Your task to perform on an android device: snooze an email in the gmail app Image 0: 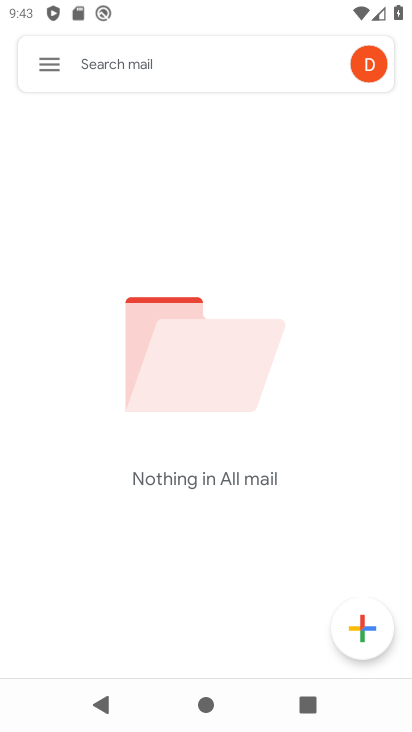
Step 0: press home button
Your task to perform on an android device: snooze an email in the gmail app Image 1: 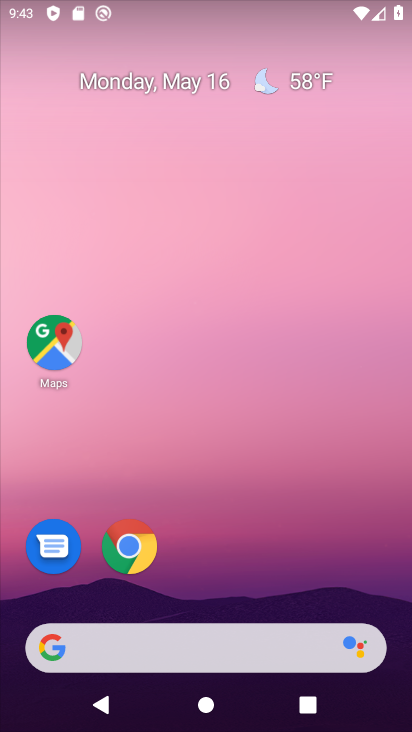
Step 1: drag from (271, 576) to (255, 293)
Your task to perform on an android device: snooze an email in the gmail app Image 2: 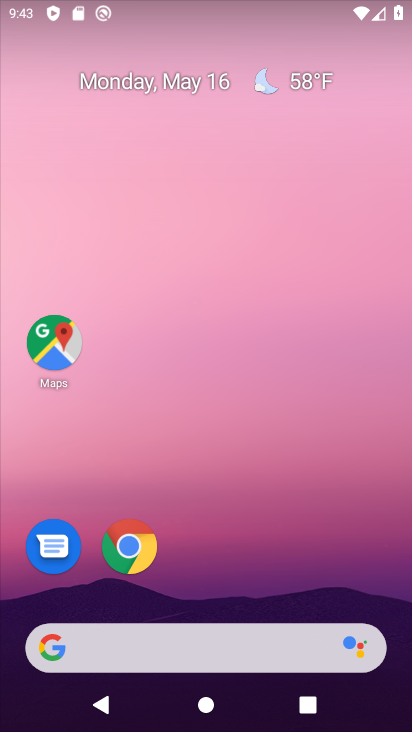
Step 2: drag from (278, 460) to (262, 81)
Your task to perform on an android device: snooze an email in the gmail app Image 3: 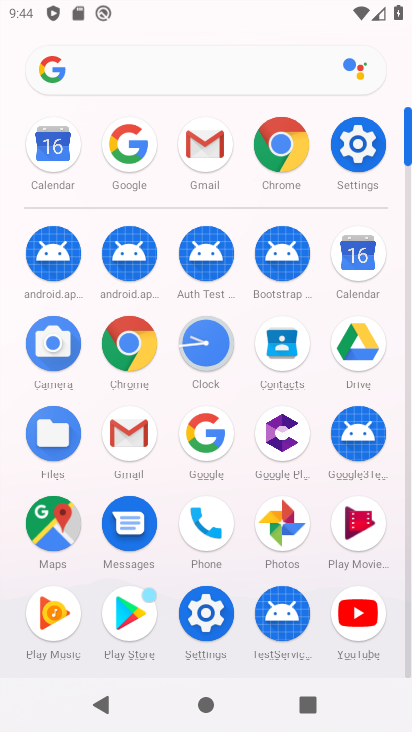
Step 3: click (204, 144)
Your task to perform on an android device: snooze an email in the gmail app Image 4: 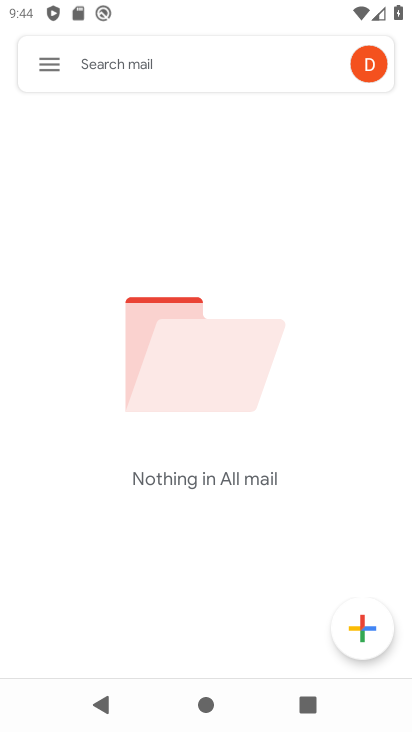
Step 4: click (53, 58)
Your task to perform on an android device: snooze an email in the gmail app Image 5: 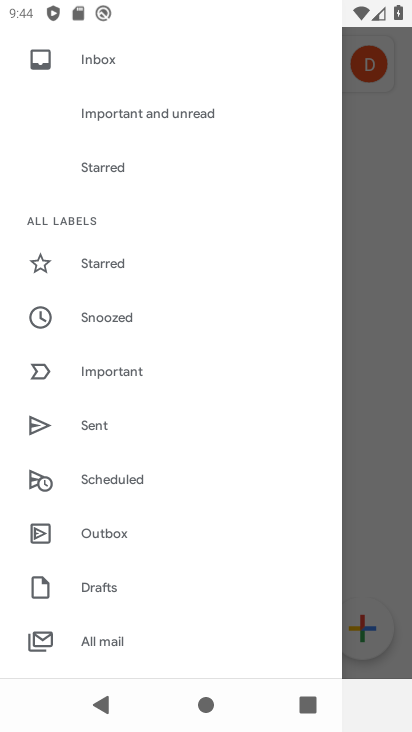
Step 5: drag from (152, 242) to (143, 347)
Your task to perform on an android device: snooze an email in the gmail app Image 6: 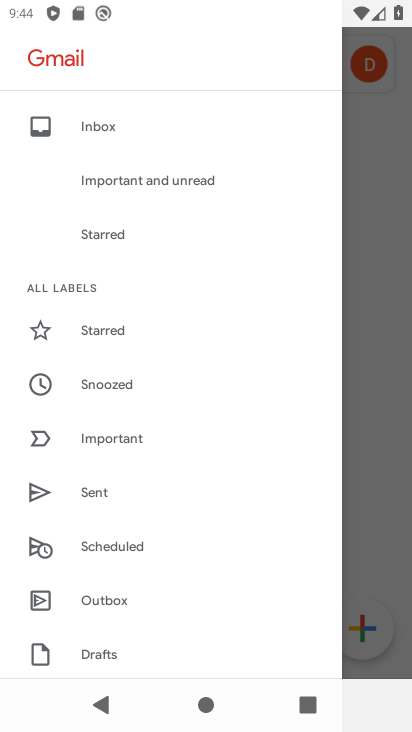
Step 6: click (94, 120)
Your task to perform on an android device: snooze an email in the gmail app Image 7: 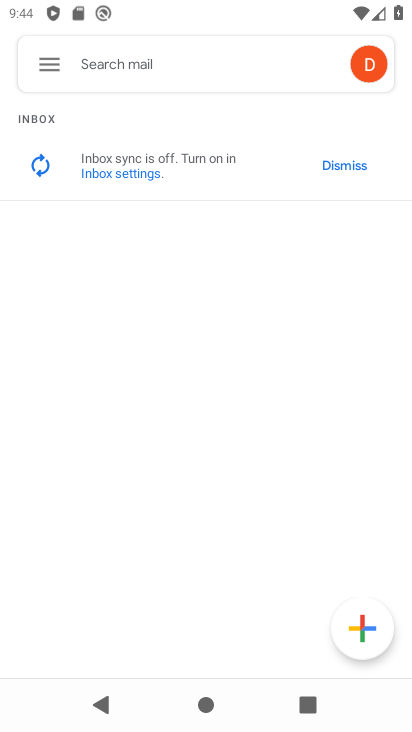
Step 7: click (38, 65)
Your task to perform on an android device: snooze an email in the gmail app Image 8: 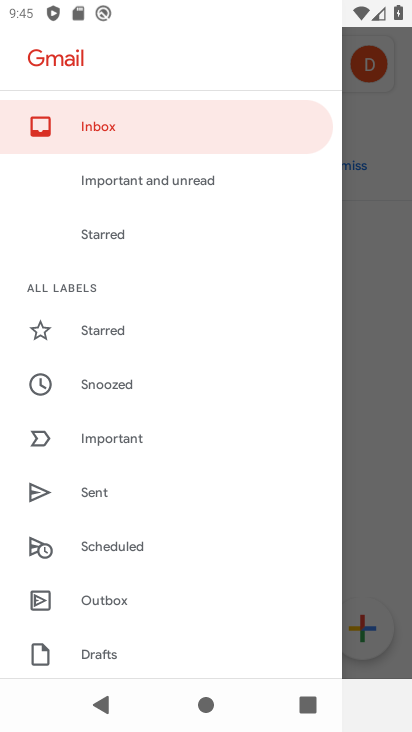
Step 8: click (106, 387)
Your task to perform on an android device: snooze an email in the gmail app Image 9: 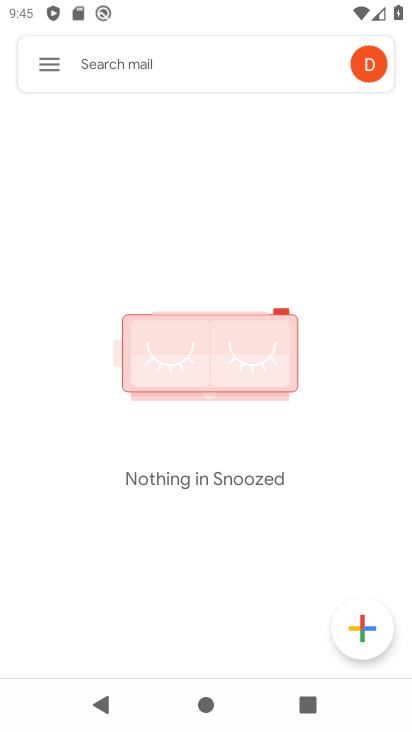
Step 9: task complete